Your task to perform on an android device: turn on the 12-hour format for clock Image 0: 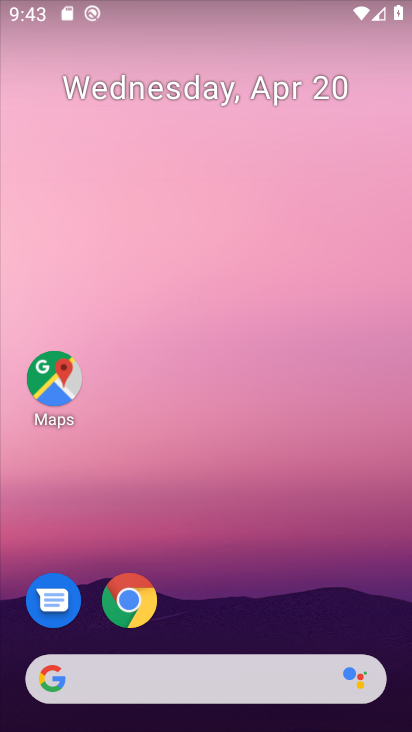
Step 0: drag from (308, 615) to (298, 177)
Your task to perform on an android device: turn on the 12-hour format for clock Image 1: 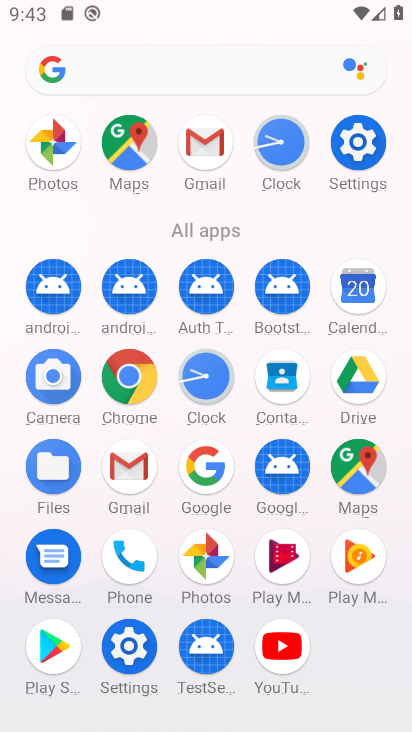
Step 1: click (212, 385)
Your task to perform on an android device: turn on the 12-hour format for clock Image 2: 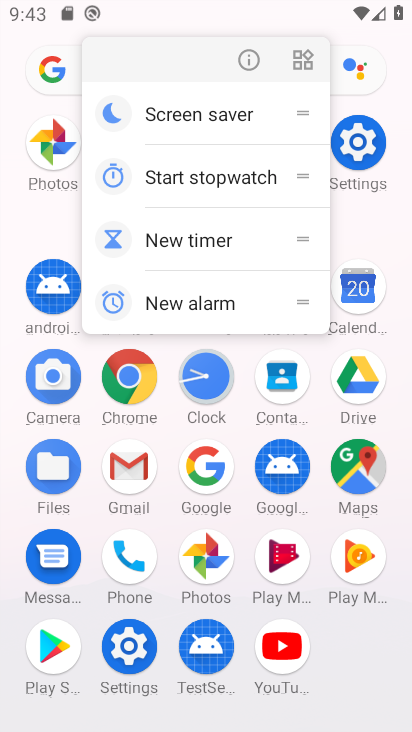
Step 2: click (200, 386)
Your task to perform on an android device: turn on the 12-hour format for clock Image 3: 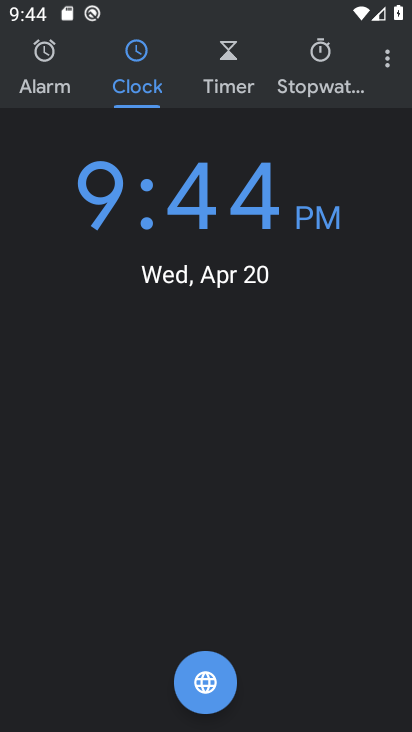
Step 3: click (391, 61)
Your task to perform on an android device: turn on the 12-hour format for clock Image 4: 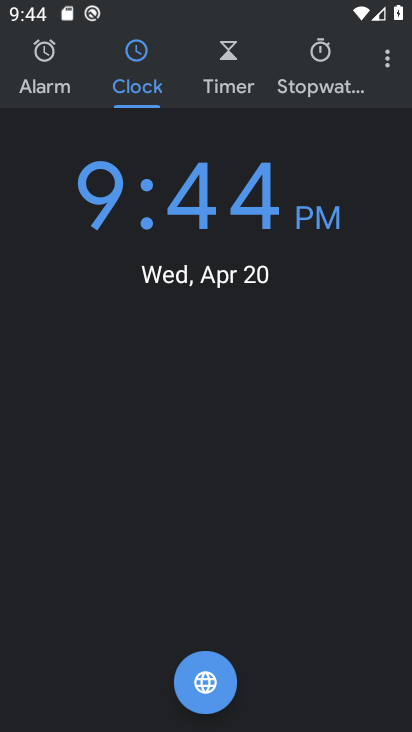
Step 4: click (387, 55)
Your task to perform on an android device: turn on the 12-hour format for clock Image 5: 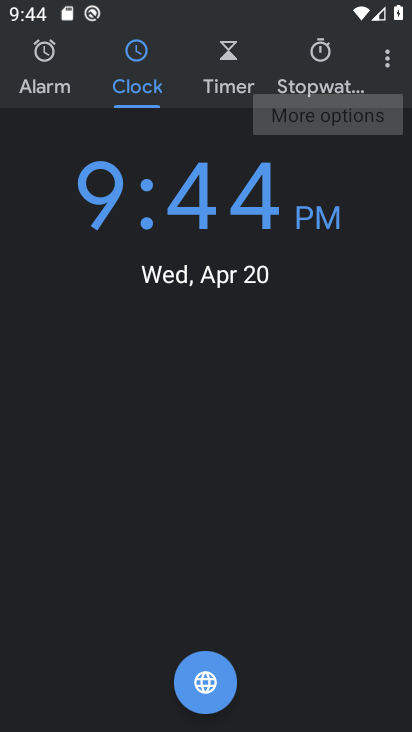
Step 5: click (389, 60)
Your task to perform on an android device: turn on the 12-hour format for clock Image 6: 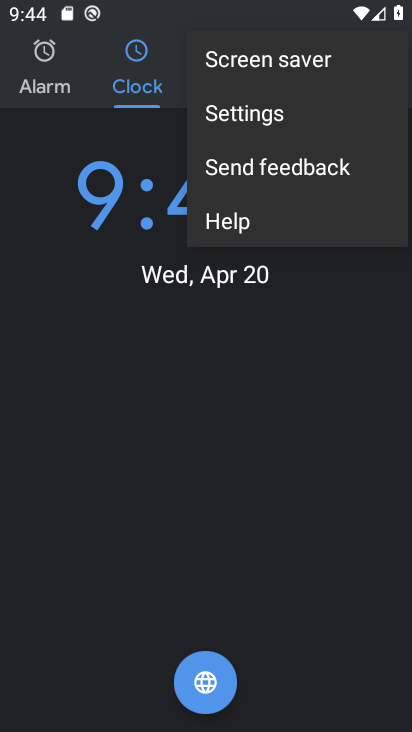
Step 6: click (260, 116)
Your task to perform on an android device: turn on the 12-hour format for clock Image 7: 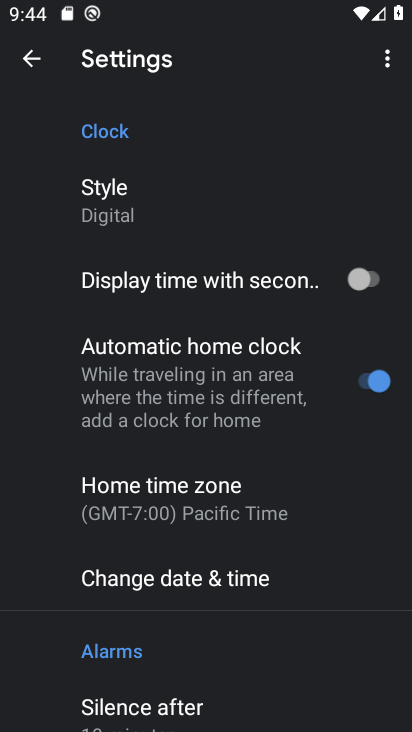
Step 7: drag from (251, 693) to (254, 491)
Your task to perform on an android device: turn on the 12-hour format for clock Image 8: 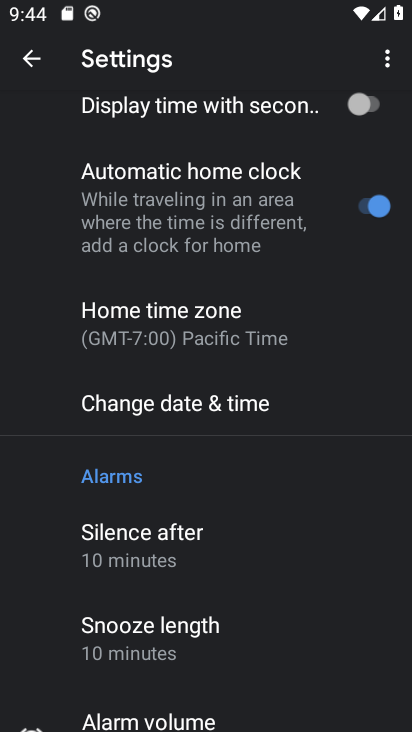
Step 8: click (241, 419)
Your task to perform on an android device: turn on the 12-hour format for clock Image 9: 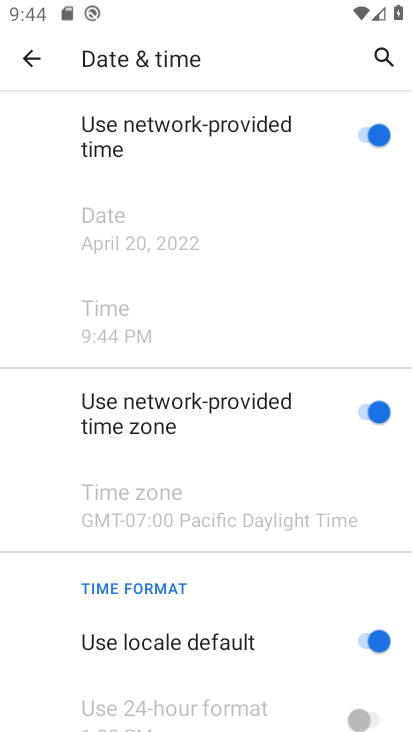
Step 9: task complete